Your task to perform on an android device: create a new album in the google photos Image 0: 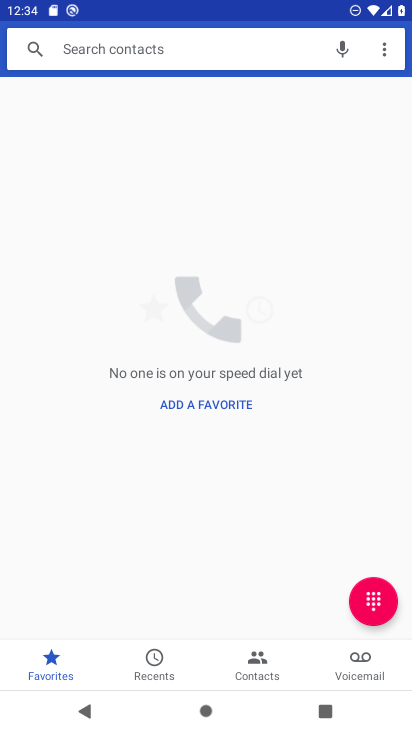
Step 0: press home button
Your task to perform on an android device: create a new album in the google photos Image 1: 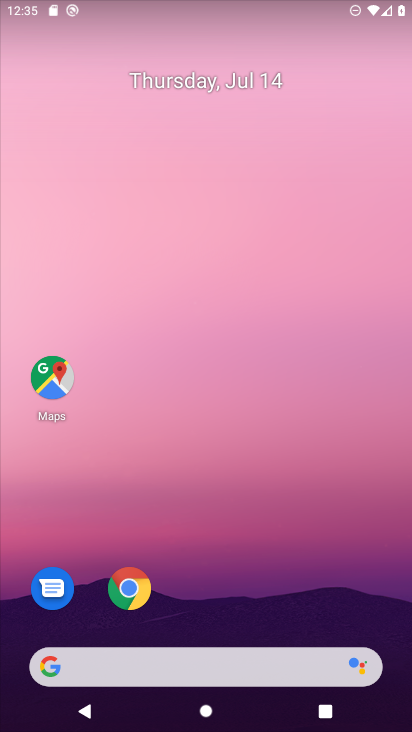
Step 1: drag from (156, 656) to (287, 148)
Your task to perform on an android device: create a new album in the google photos Image 2: 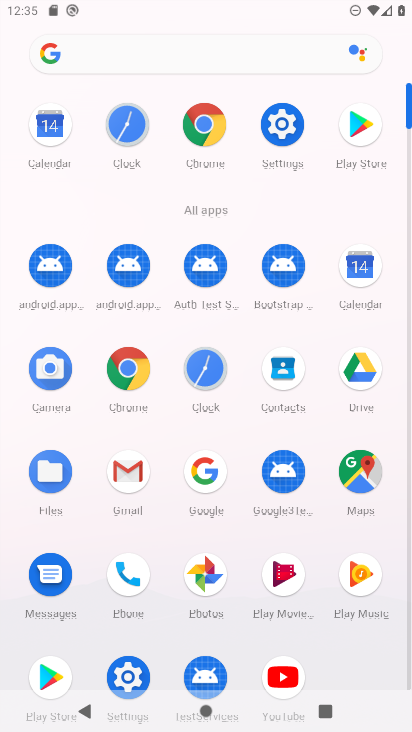
Step 2: click (207, 576)
Your task to perform on an android device: create a new album in the google photos Image 3: 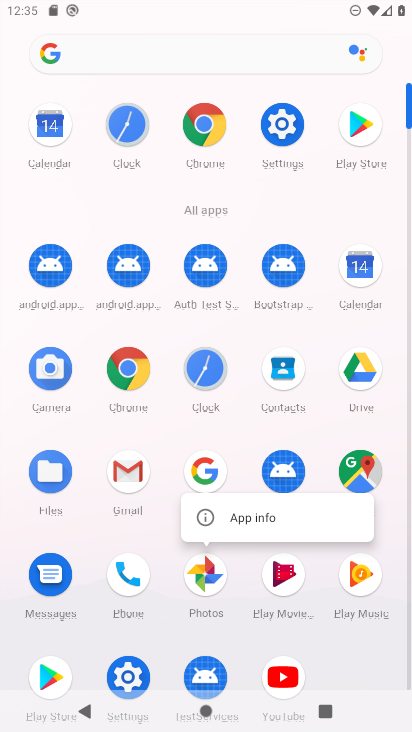
Step 3: click (207, 574)
Your task to perform on an android device: create a new album in the google photos Image 4: 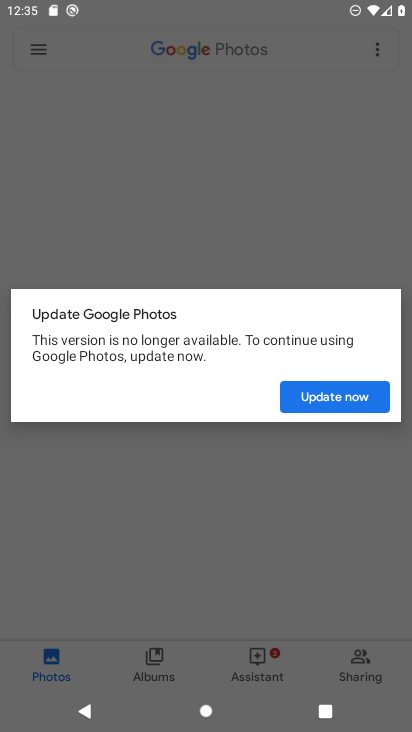
Step 4: click (342, 391)
Your task to perform on an android device: create a new album in the google photos Image 5: 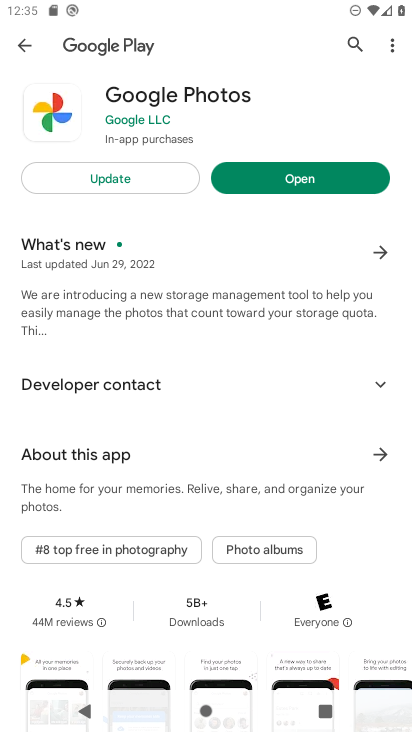
Step 5: click (281, 168)
Your task to perform on an android device: create a new album in the google photos Image 6: 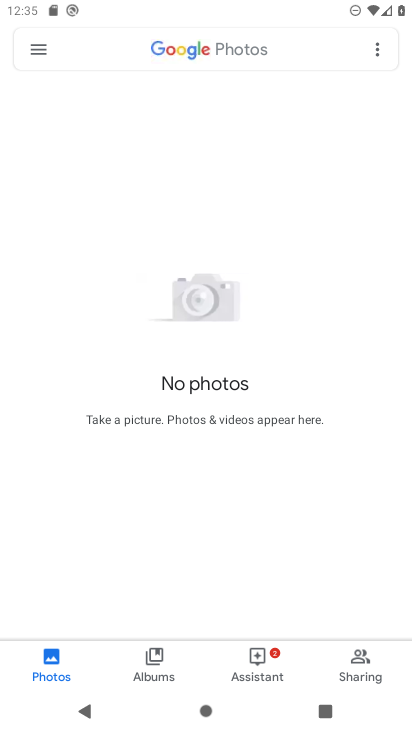
Step 6: click (152, 664)
Your task to perform on an android device: create a new album in the google photos Image 7: 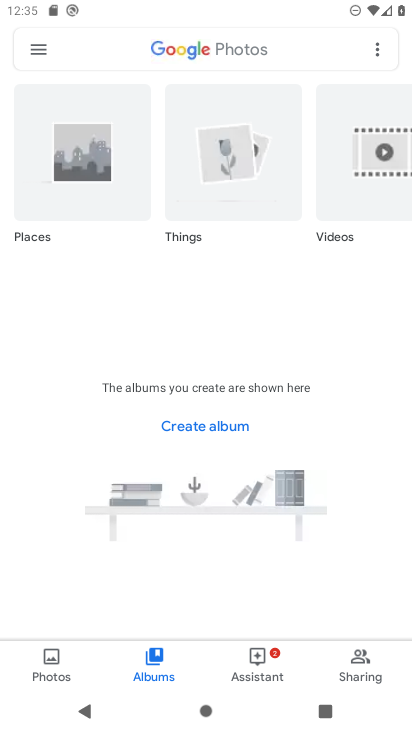
Step 7: click (213, 425)
Your task to perform on an android device: create a new album in the google photos Image 8: 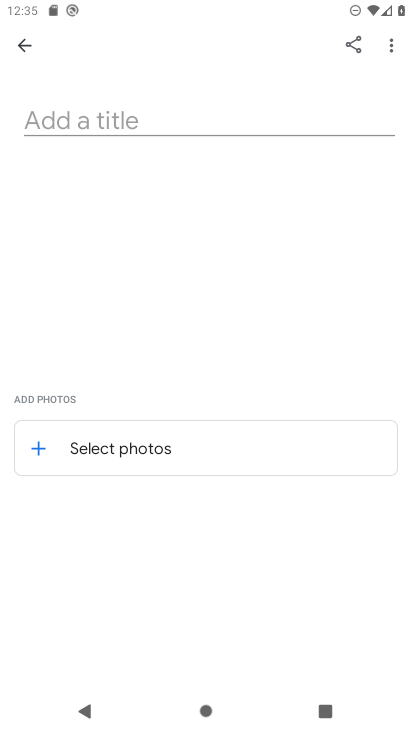
Step 8: task complete